Your task to perform on an android device: move an email to a new category in the gmail app Image 0: 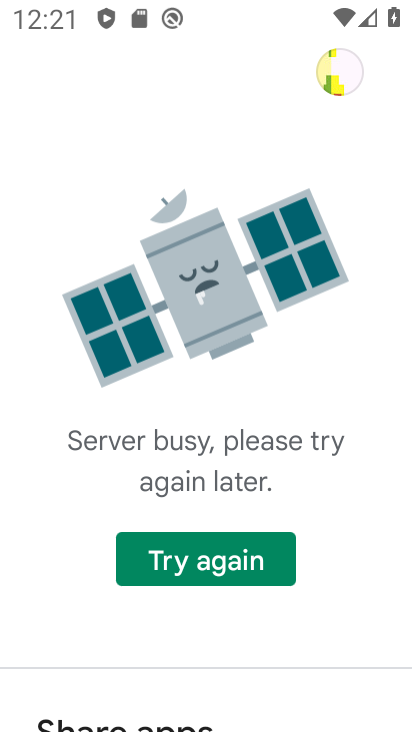
Step 0: press back button
Your task to perform on an android device: move an email to a new category in the gmail app Image 1: 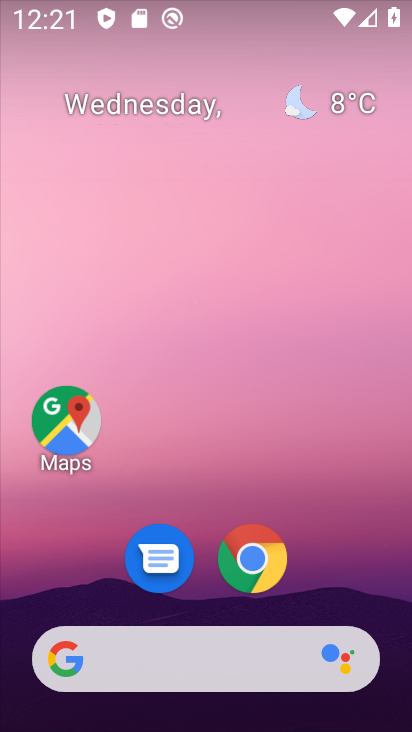
Step 1: drag from (309, 556) to (265, 6)
Your task to perform on an android device: move an email to a new category in the gmail app Image 2: 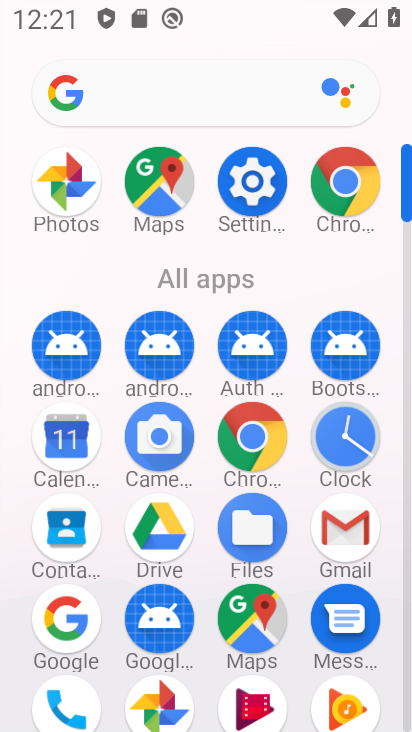
Step 2: drag from (14, 519) to (26, 265)
Your task to perform on an android device: move an email to a new category in the gmail app Image 3: 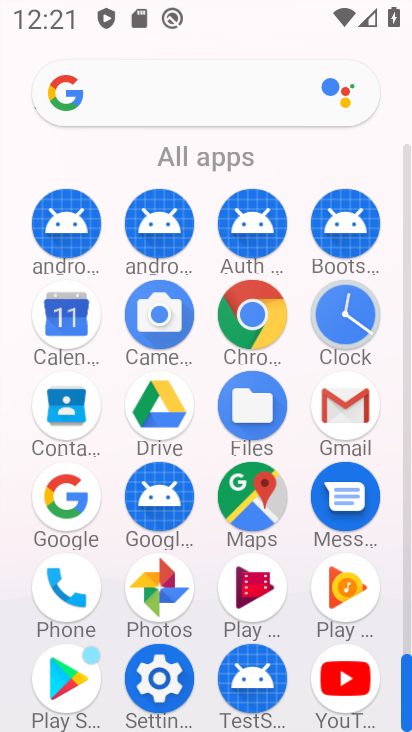
Step 3: click (347, 397)
Your task to perform on an android device: move an email to a new category in the gmail app Image 4: 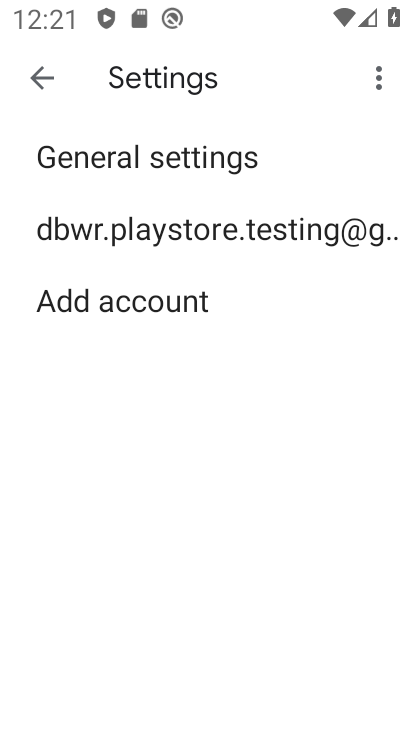
Step 4: click (27, 75)
Your task to perform on an android device: move an email to a new category in the gmail app Image 5: 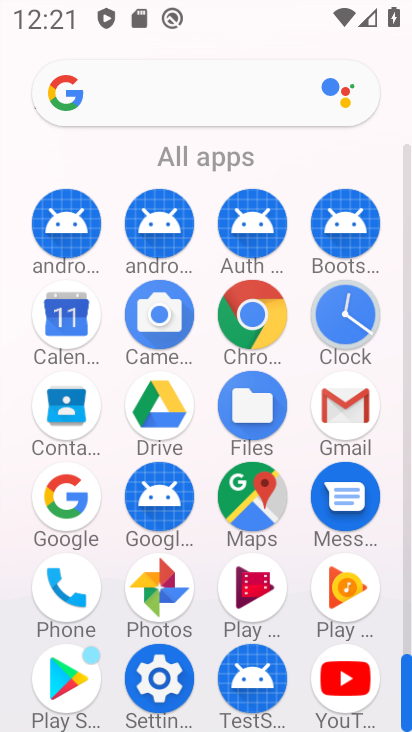
Step 5: click (344, 396)
Your task to perform on an android device: move an email to a new category in the gmail app Image 6: 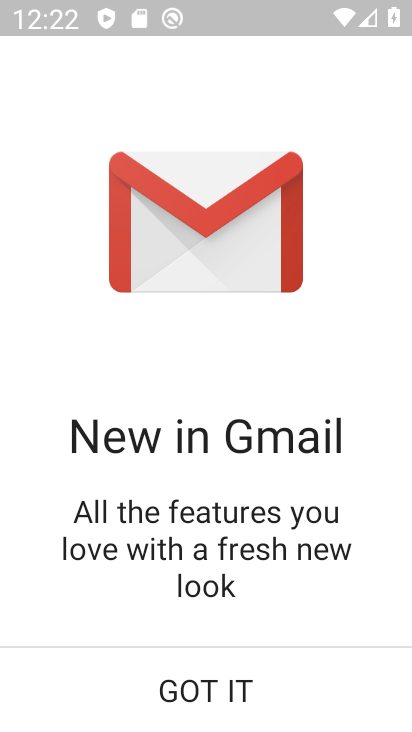
Step 6: click (220, 672)
Your task to perform on an android device: move an email to a new category in the gmail app Image 7: 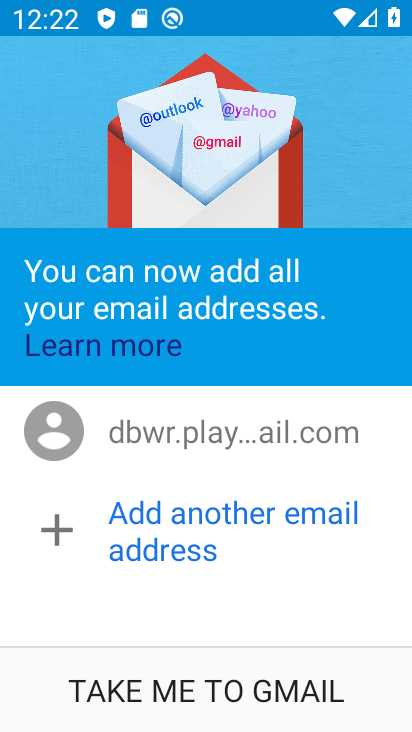
Step 7: click (215, 684)
Your task to perform on an android device: move an email to a new category in the gmail app Image 8: 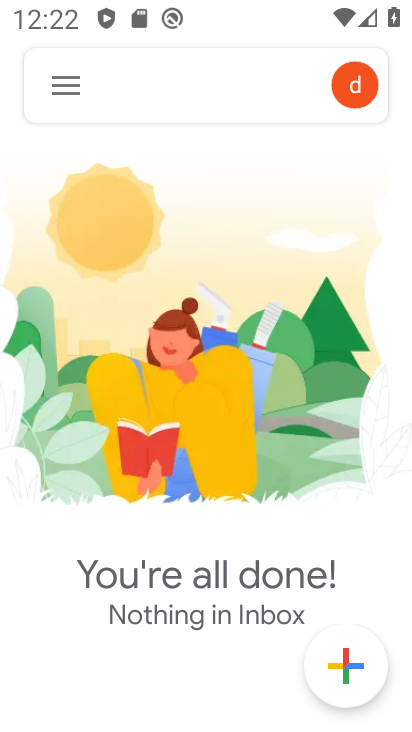
Step 8: click (72, 78)
Your task to perform on an android device: move an email to a new category in the gmail app Image 9: 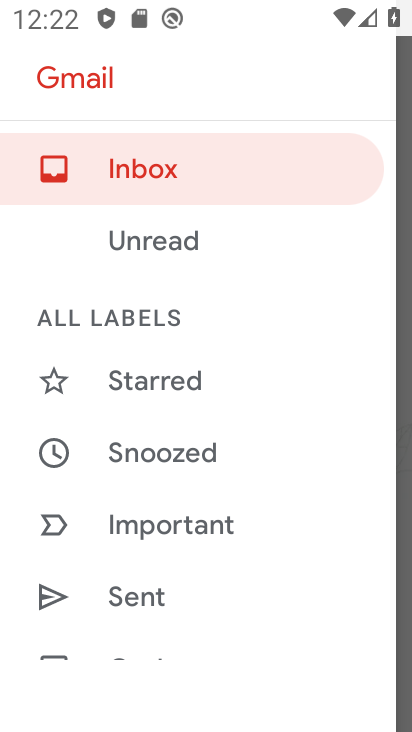
Step 9: drag from (175, 499) to (182, 174)
Your task to perform on an android device: move an email to a new category in the gmail app Image 10: 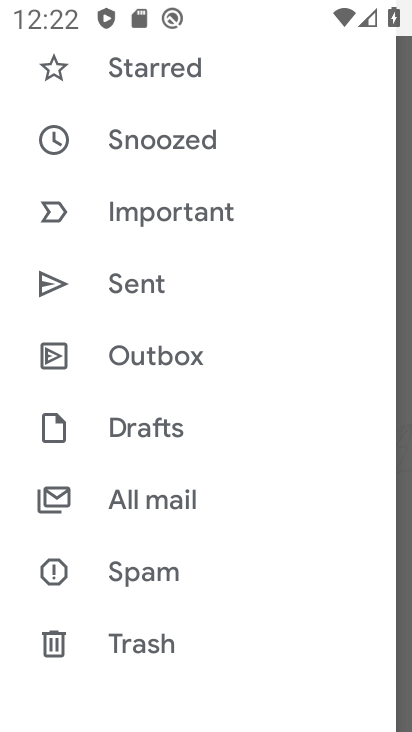
Step 10: drag from (179, 554) to (232, 269)
Your task to perform on an android device: move an email to a new category in the gmail app Image 11: 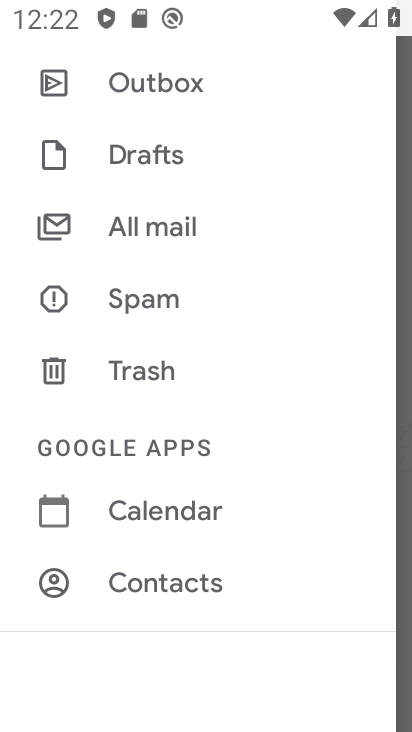
Step 11: click (175, 227)
Your task to perform on an android device: move an email to a new category in the gmail app Image 12: 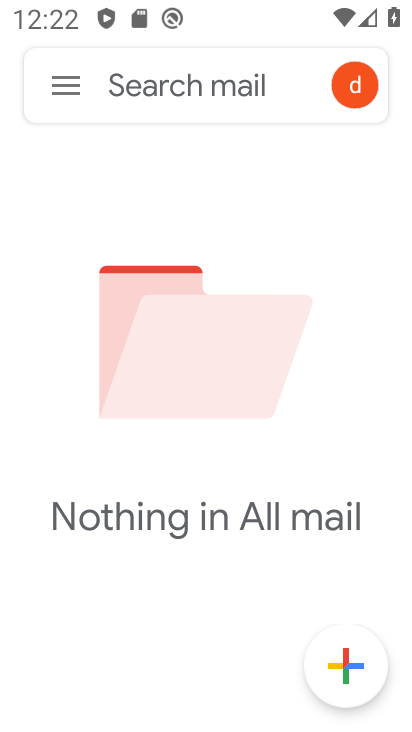
Step 12: task complete